Your task to perform on an android device: What's the weather? Image 0: 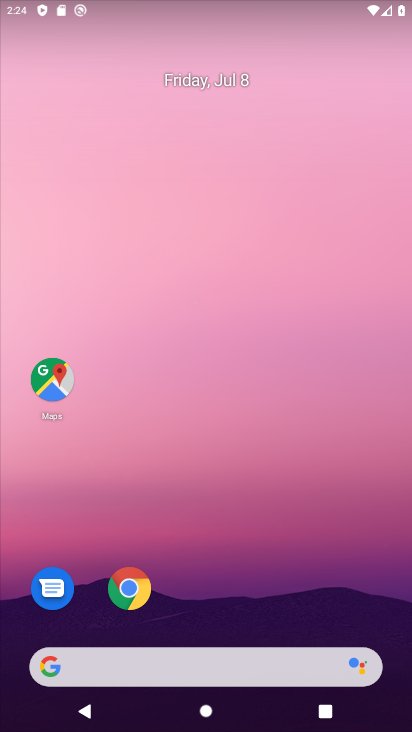
Step 0: press home button
Your task to perform on an android device: What's the weather? Image 1: 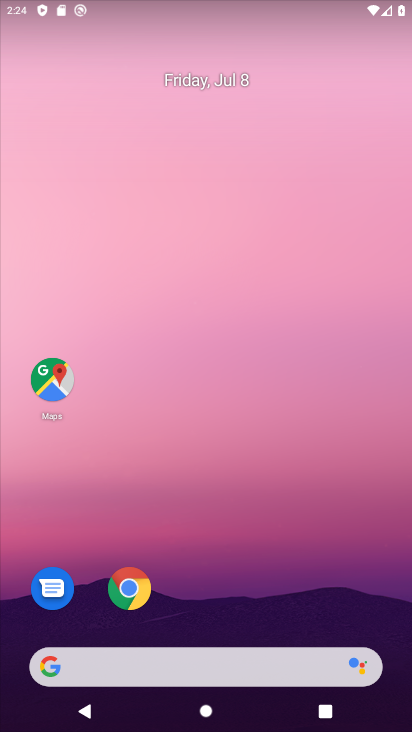
Step 1: drag from (173, 417) to (171, 217)
Your task to perform on an android device: What's the weather? Image 2: 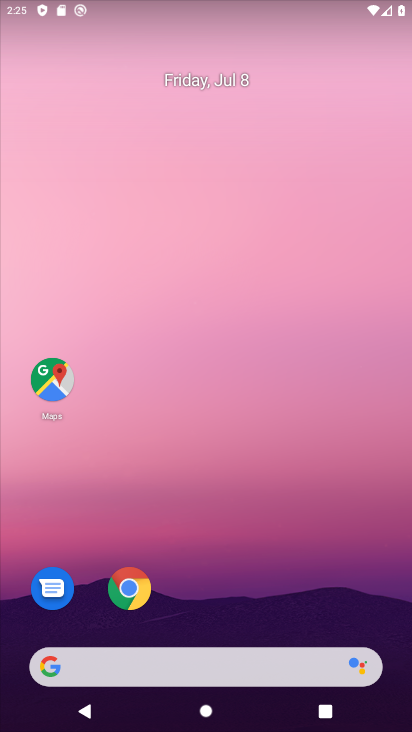
Step 2: drag from (186, 574) to (185, 209)
Your task to perform on an android device: What's the weather? Image 3: 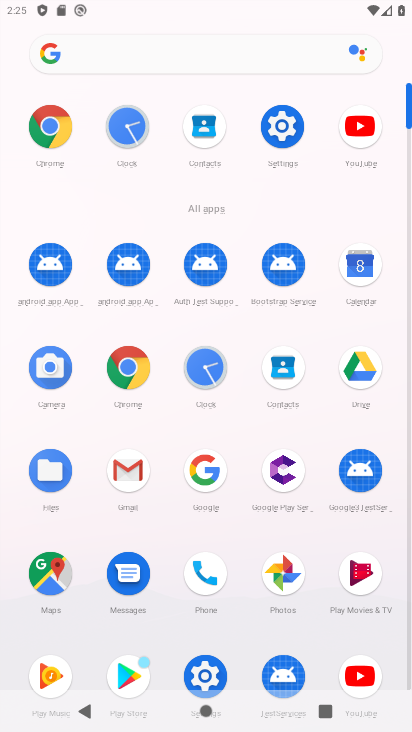
Step 3: click (210, 470)
Your task to perform on an android device: What's the weather? Image 4: 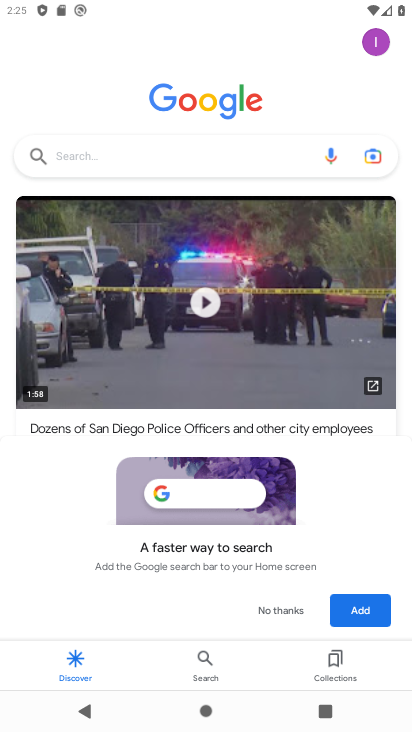
Step 4: click (363, 604)
Your task to perform on an android device: What's the weather? Image 5: 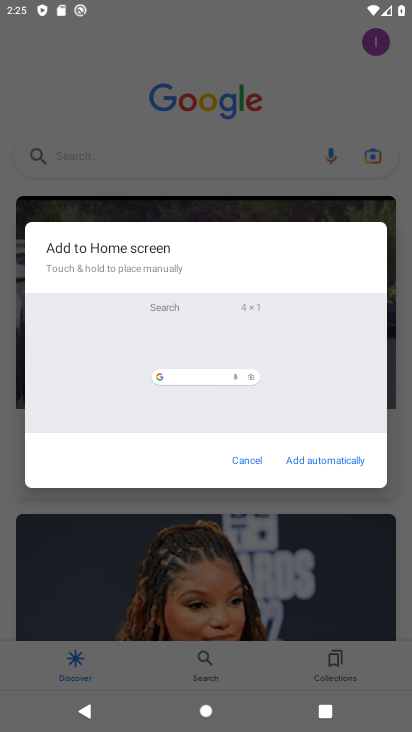
Step 5: click (281, 463)
Your task to perform on an android device: What's the weather? Image 6: 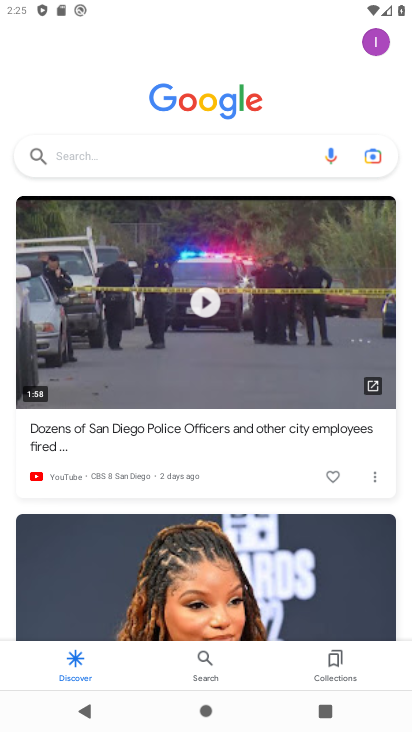
Step 6: click (183, 152)
Your task to perform on an android device: What's the weather? Image 7: 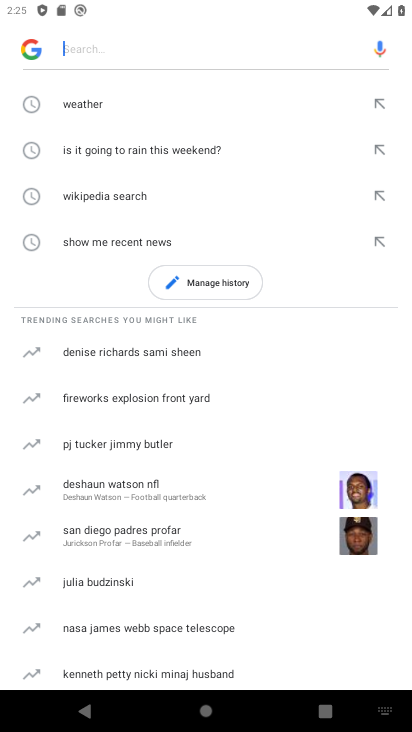
Step 7: click (96, 95)
Your task to perform on an android device: What's the weather? Image 8: 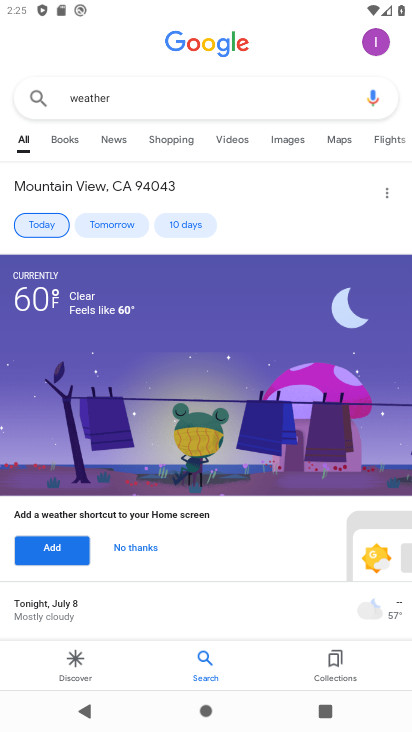
Step 8: task complete